Your task to perform on an android device: delete the emails in spam in the gmail app Image 0: 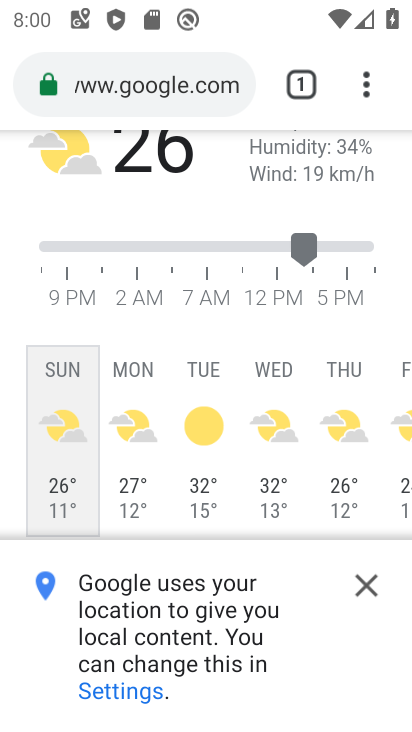
Step 0: press home button
Your task to perform on an android device: delete the emails in spam in the gmail app Image 1: 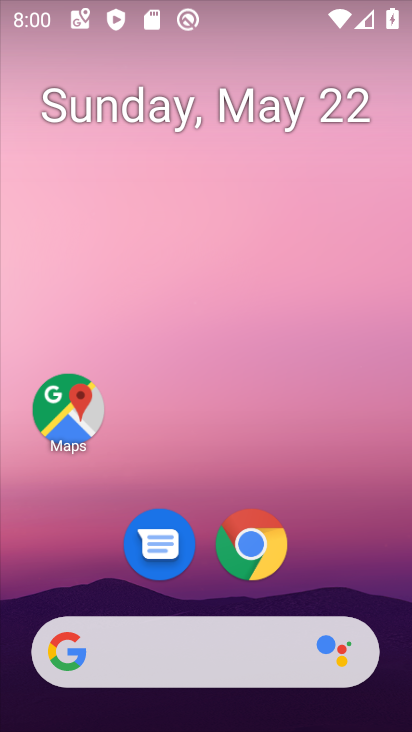
Step 1: drag from (356, 530) to (364, 161)
Your task to perform on an android device: delete the emails in spam in the gmail app Image 2: 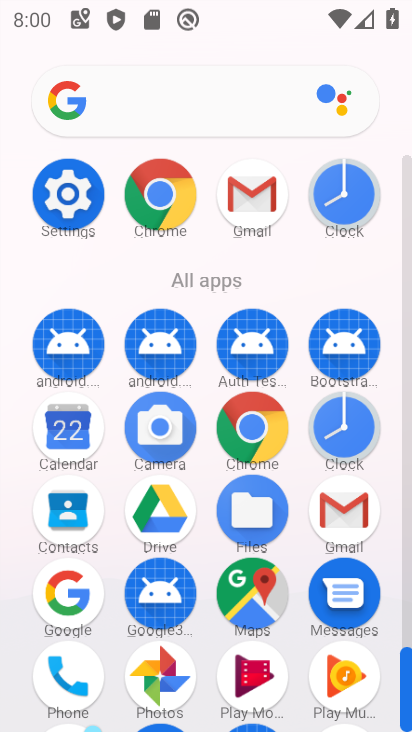
Step 2: click (241, 194)
Your task to perform on an android device: delete the emails in spam in the gmail app Image 3: 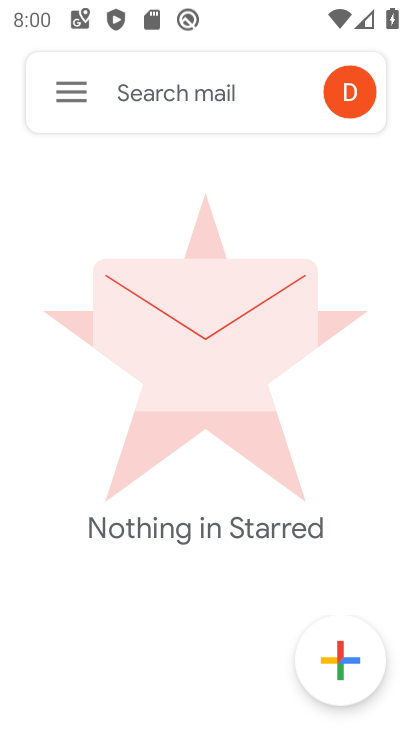
Step 3: click (64, 67)
Your task to perform on an android device: delete the emails in spam in the gmail app Image 4: 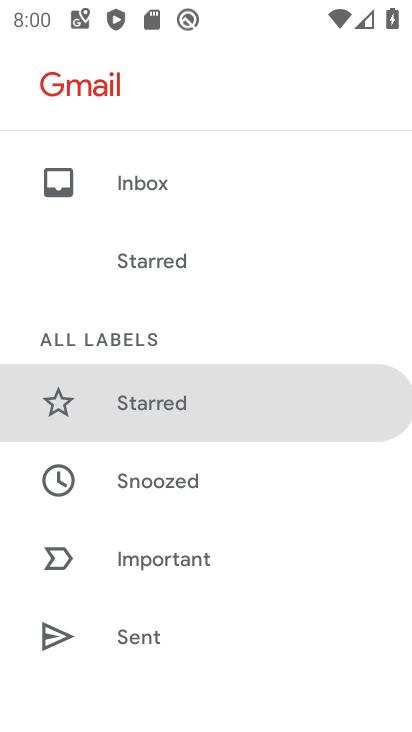
Step 4: drag from (113, 564) to (168, 135)
Your task to perform on an android device: delete the emails in spam in the gmail app Image 5: 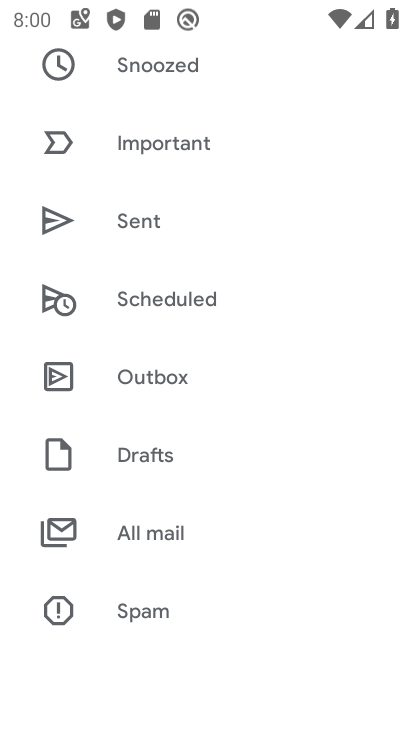
Step 5: drag from (162, 507) to (194, 249)
Your task to perform on an android device: delete the emails in spam in the gmail app Image 6: 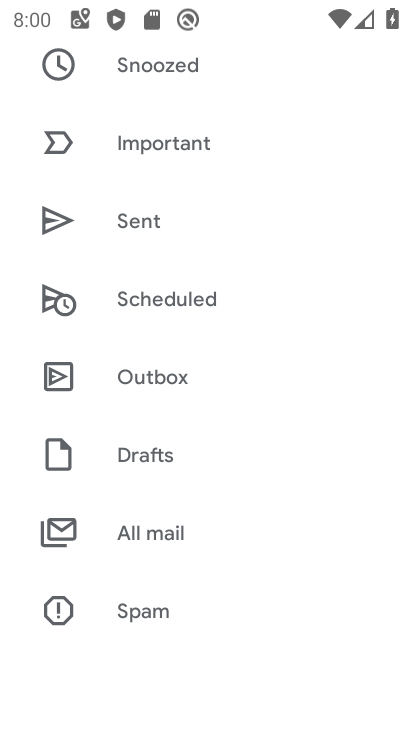
Step 6: click (132, 619)
Your task to perform on an android device: delete the emails in spam in the gmail app Image 7: 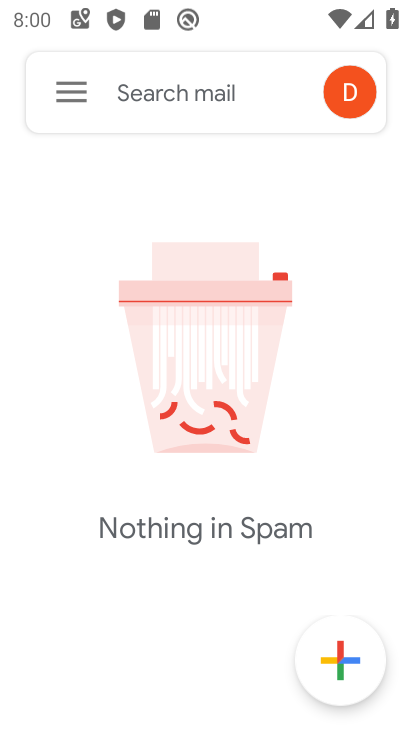
Step 7: task complete